Your task to perform on an android device: Open internet settings Image 0: 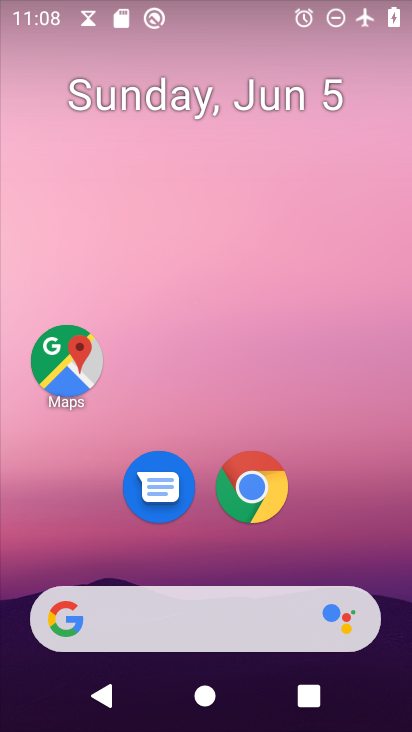
Step 0: drag from (328, 512) to (302, 186)
Your task to perform on an android device: Open internet settings Image 1: 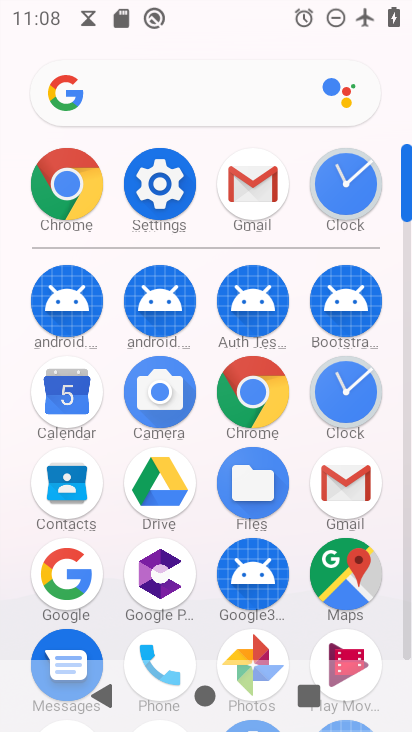
Step 1: click (160, 172)
Your task to perform on an android device: Open internet settings Image 2: 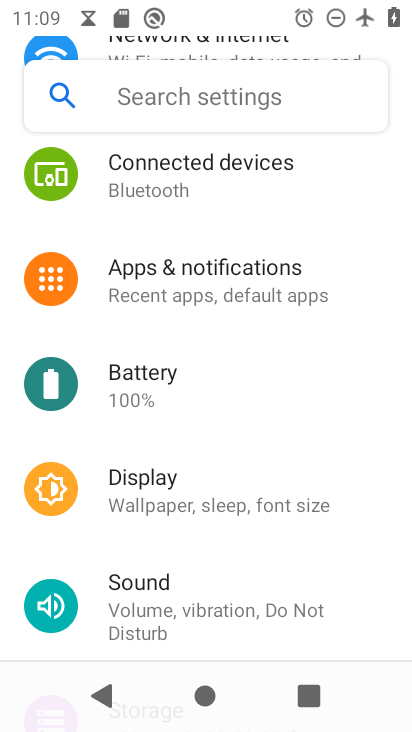
Step 2: drag from (189, 180) to (202, 363)
Your task to perform on an android device: Open internet settings Image 3: 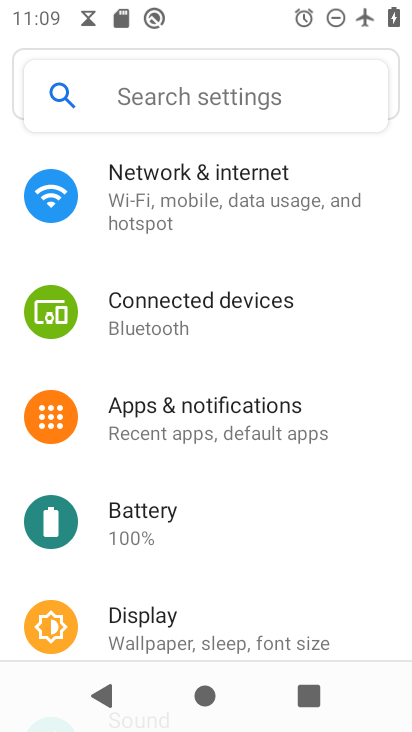
Step 3: click (213, 200)
Your task to perform on an android device: Open internet settings Image 4: 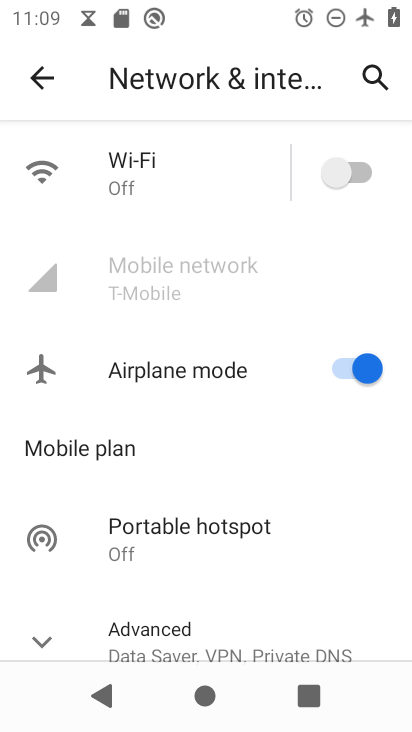
Step 4: task complete